Your task to perform on an android device: turn on sleep mode Image 0: 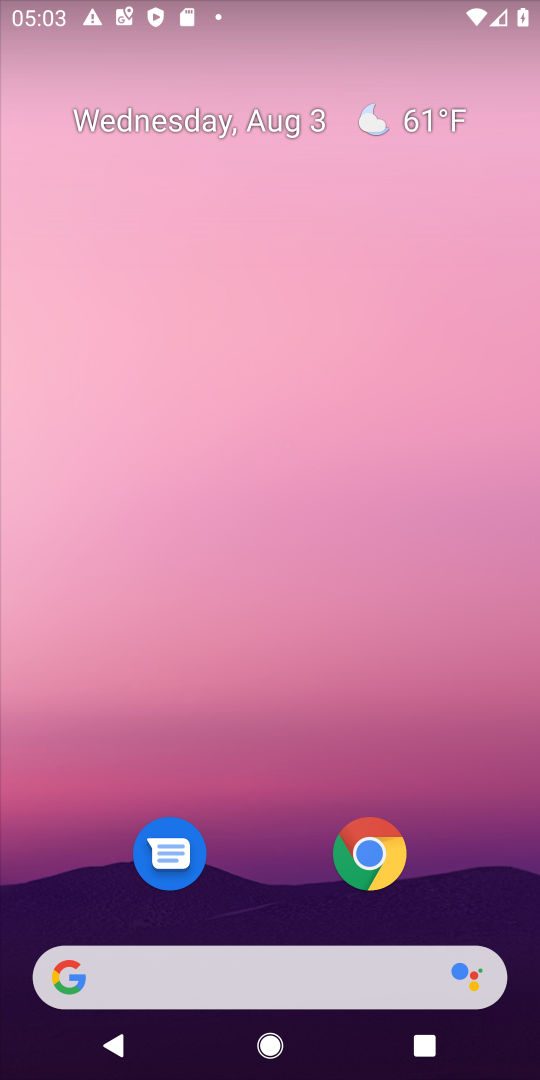
Step 0: drag from (293, 923) to (263, 61)
Your task to perform on an android device: turn on sleep mode Image 1: 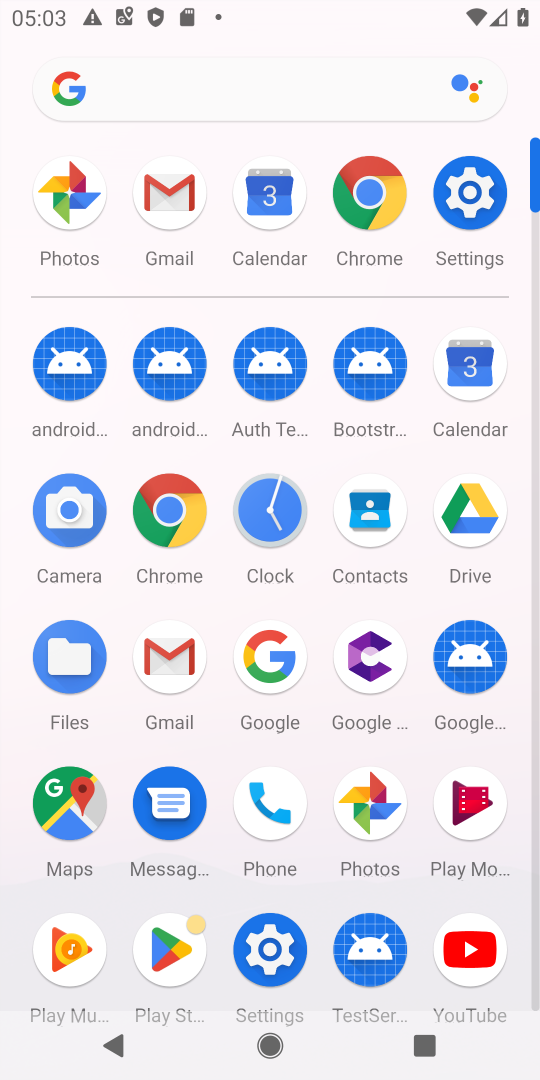
Step 1: click (465, 195)
Your task to perform on an android device: turn on sleep mode Image 2: 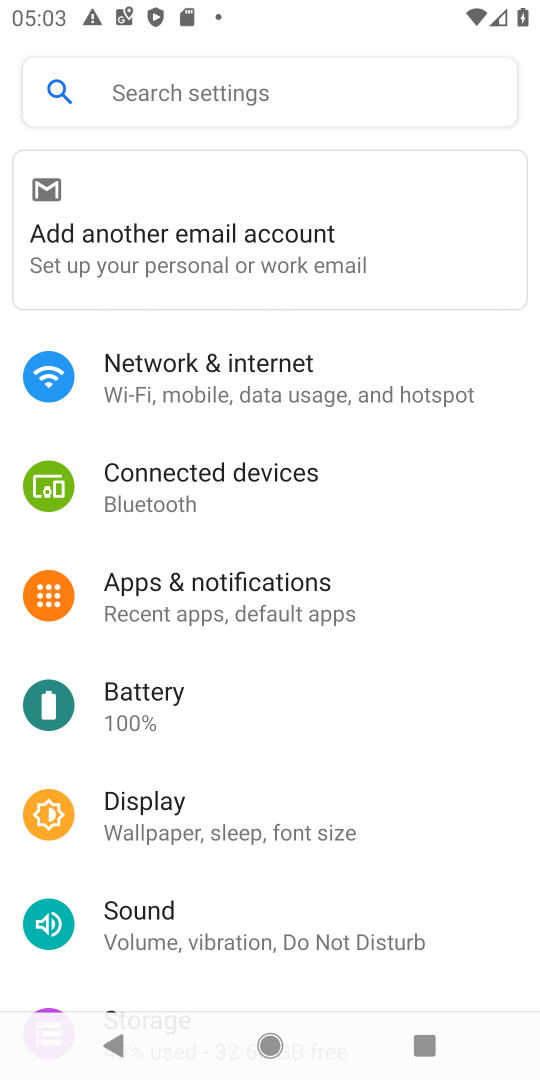
Step 2: click (280, 833)
Your task to perform on an android device: turn on sleep mode Image 3: 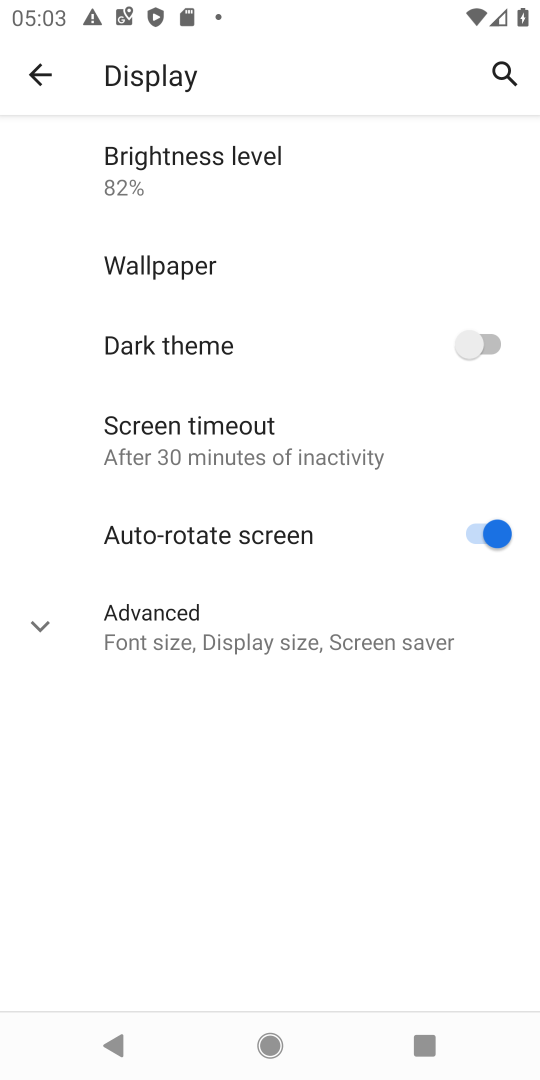
Step 3: task complete